Your task to perform on an android device: toggle improve location accuracy Image 0: 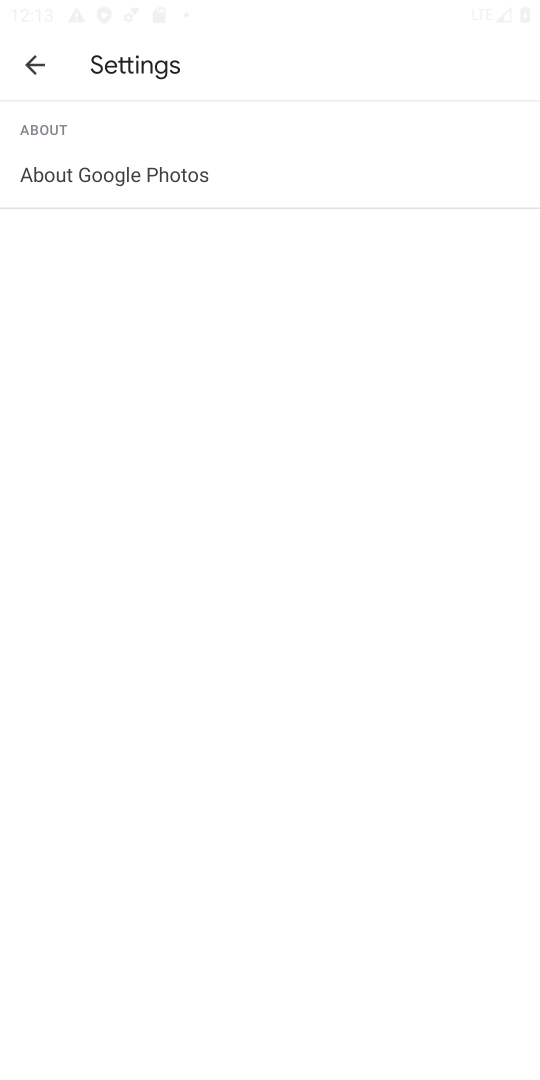
Step 0: press home button
Your task to perform on an android device: toggle improve location accuracy Image 1: 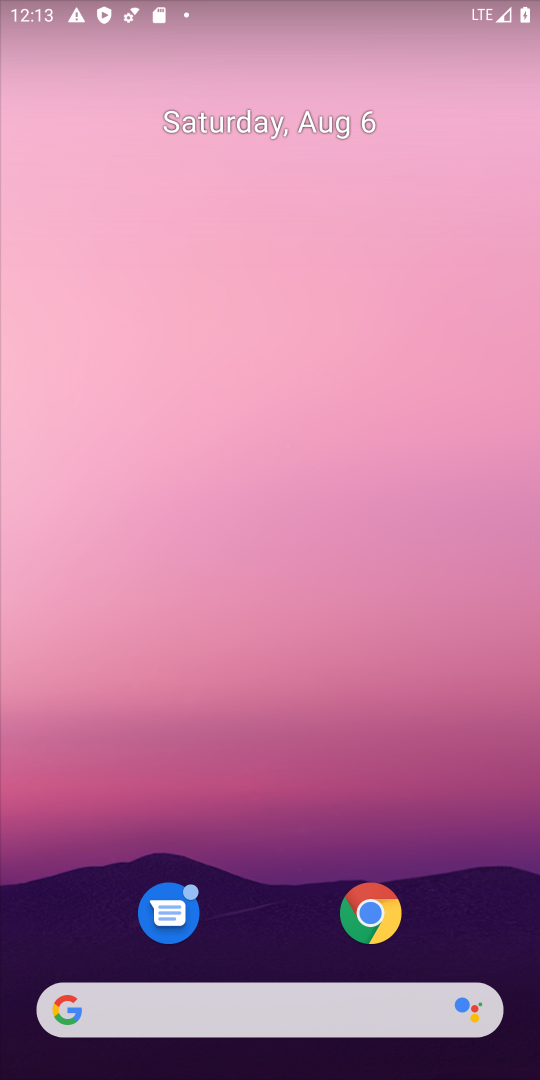
Step 1: drag from (457, 915) to (449, 445)
Your task to perform on an android device: toggle improve location accuracy Image 2: 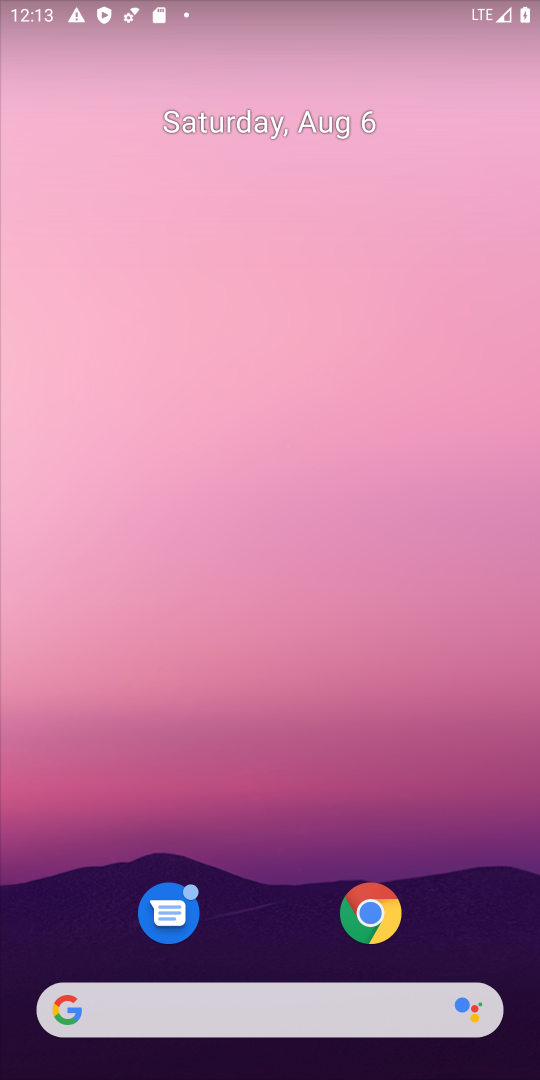
Step 2: drag from (470, 894) to (474, 265)
Your task to perform on an android device: toggle improve location accuracy Image 3: 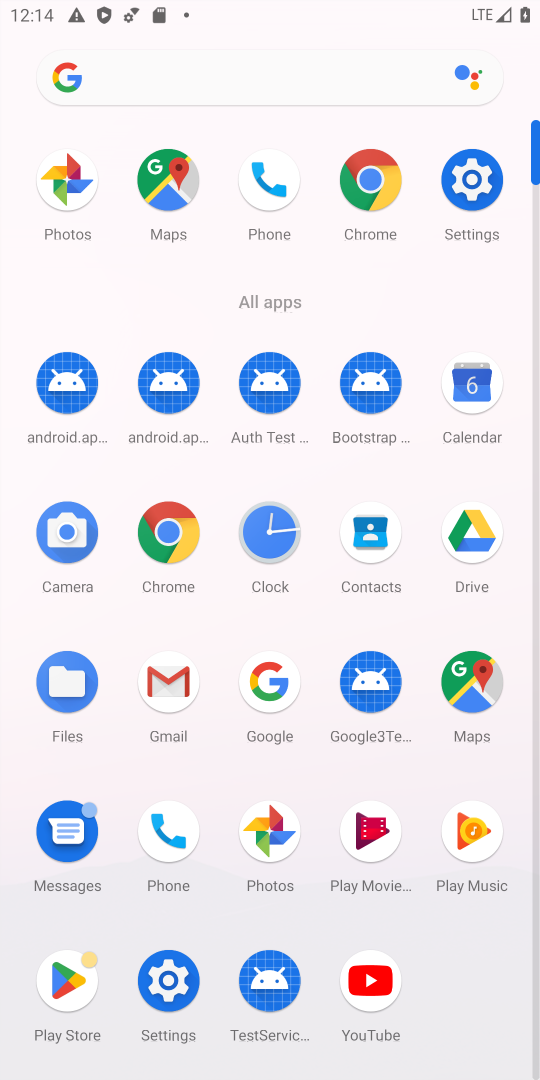
Step 3: click (161, 977)
Your task to perform on an android device: toggle improve location accuracy Image 4: 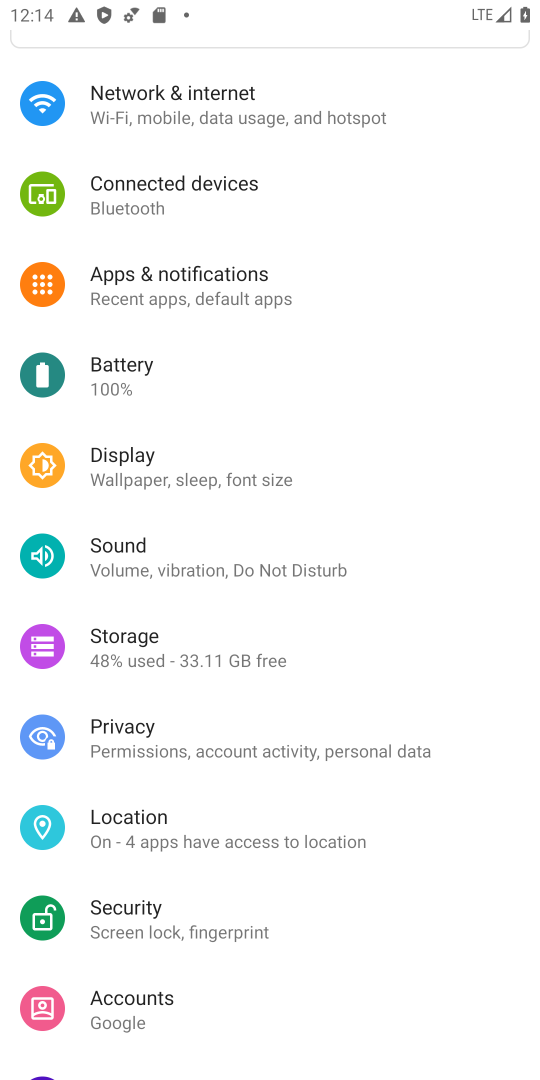
Step 4: drag from (453, 429) to (446, 564)
Your task to perform on an android device: toggle improve location accuracy Image 5: 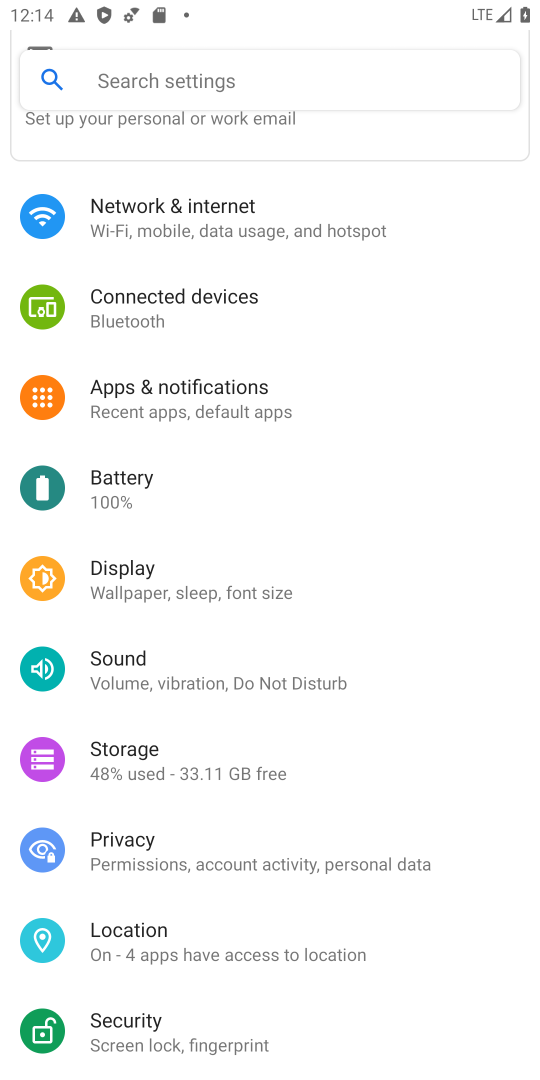
Step 5: drag from (460, 353) to (434, 601)
Your task to perform on an android device: toggle improve location accuracy Image 6: 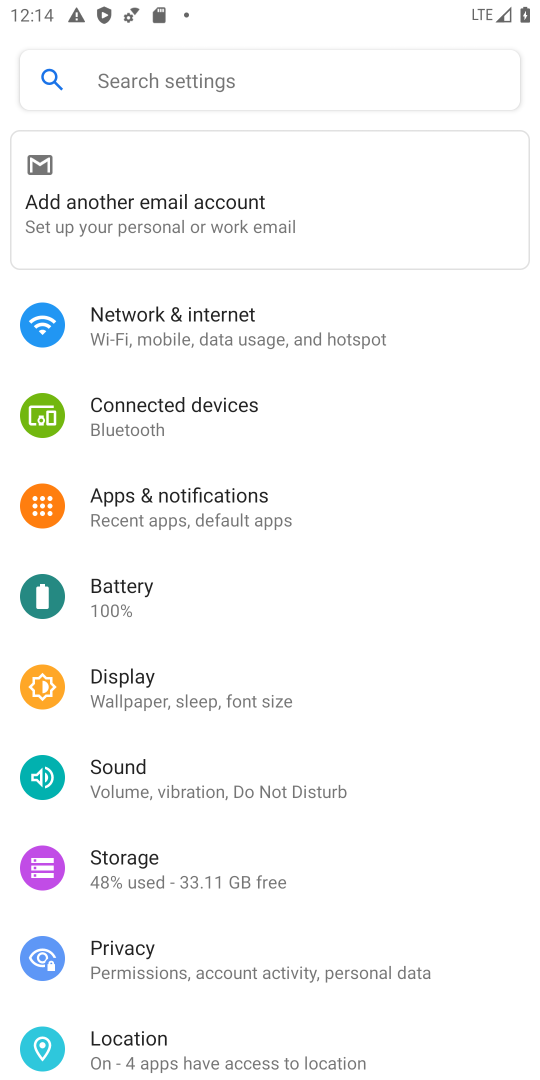
Step 6: drag from (418, 393) to (419, 599)
Your task to perform on an android device: toggle improve location accuracy Image 7: 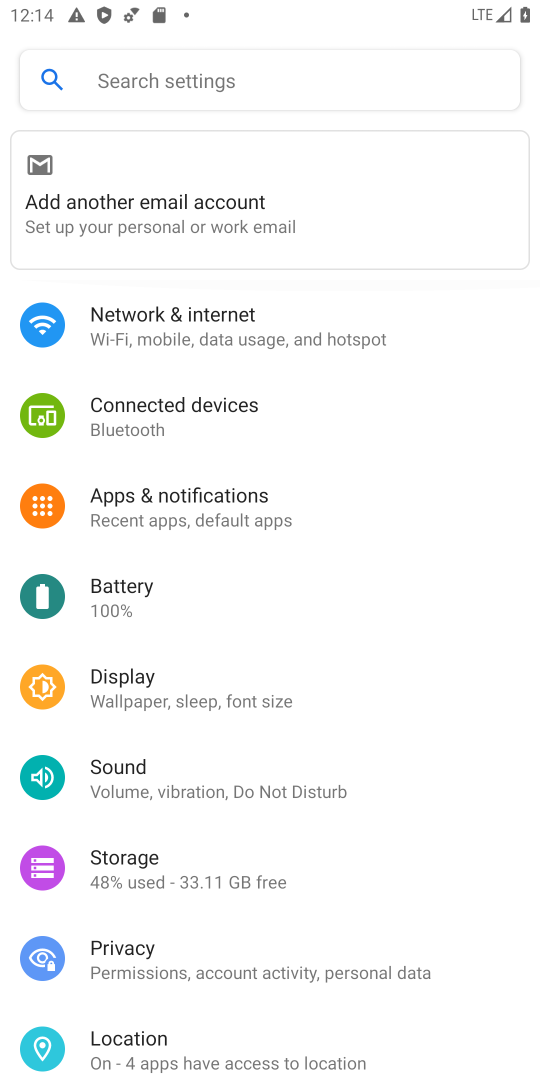
Step 7: drag from (455, 651) to (437, 418)
Your task to perform on an android device: toggle improve location accuracy Image 8: 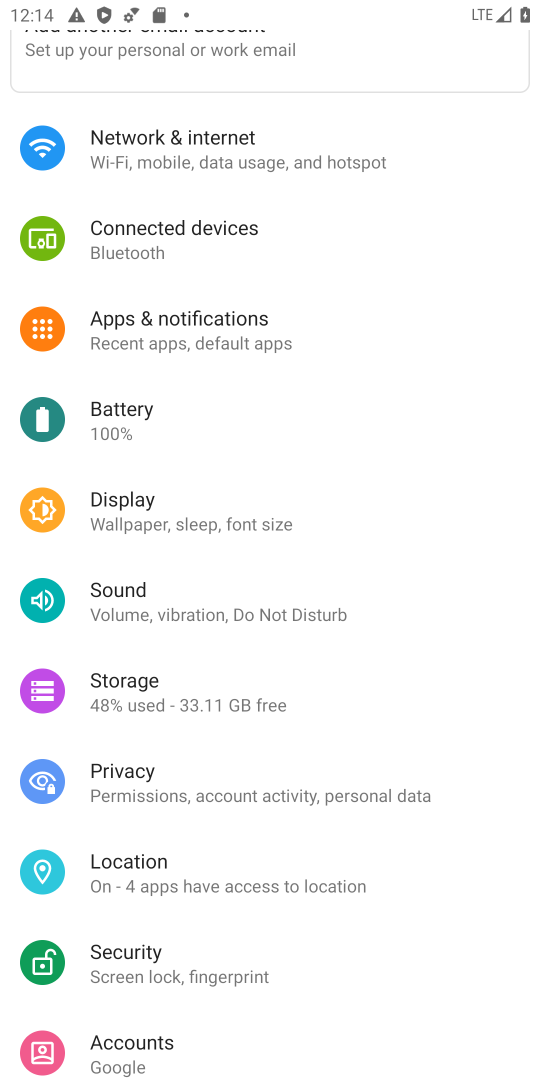
Step 8: drag from (400, 759) to (400, 366)
Your task to perform on an android device: toggle improve location accuracy Image 9: 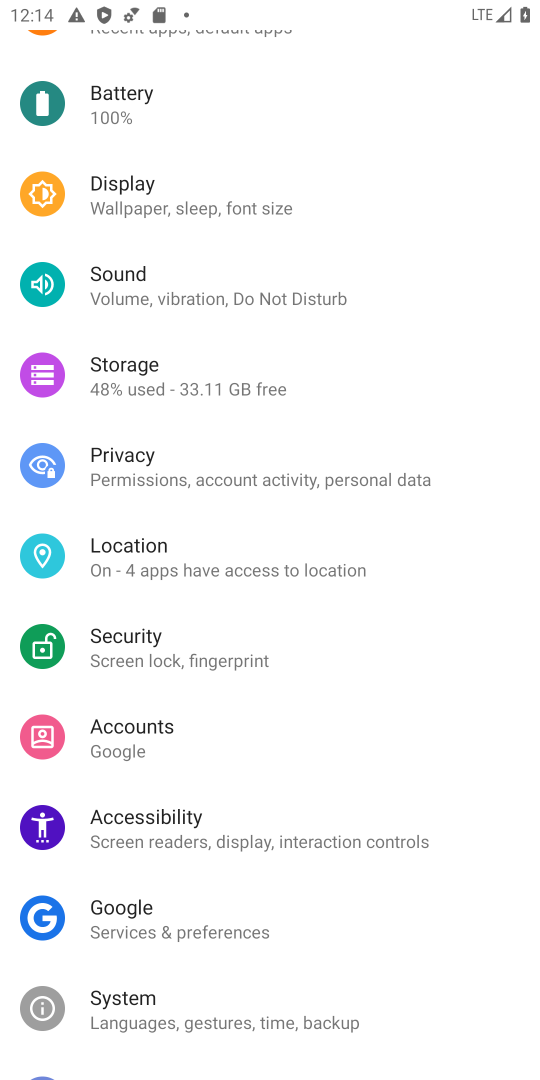
Step 9: click (324, 564)
Your task to perform on an android device: toggle improve location accuracy Image 10: 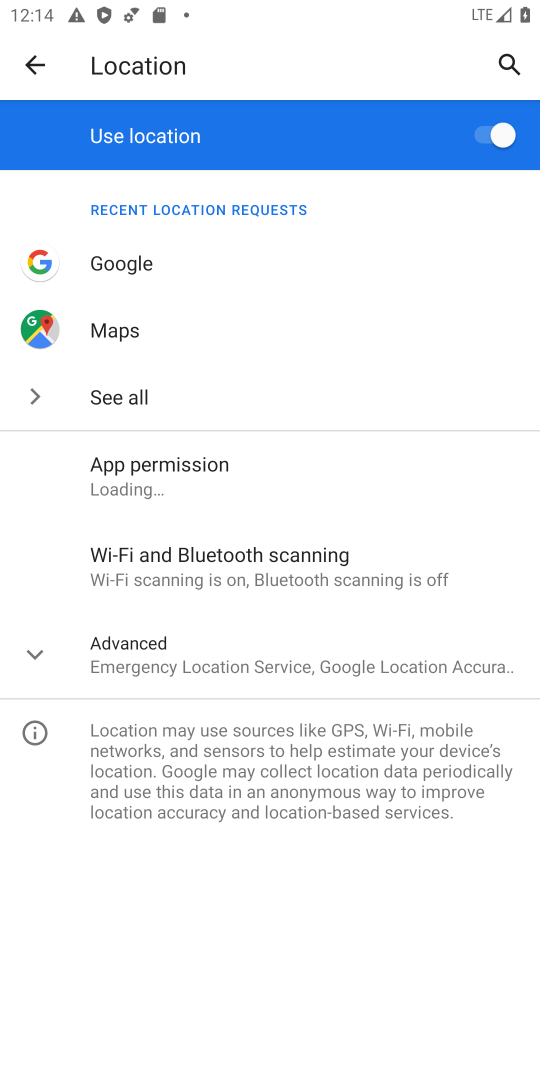
Step 10: click (309, 654)
Your task to perform on an android device: toggle improve location accuracy Image 11: 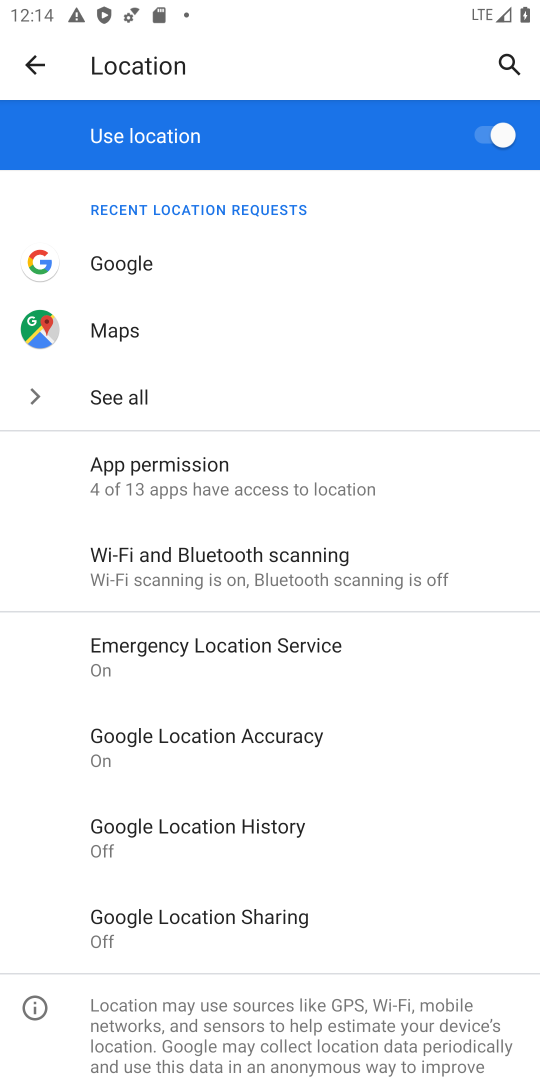
Step 11: click (267, 733)
Your task to perform on an android device: toggle improve location accuracy Image 12: 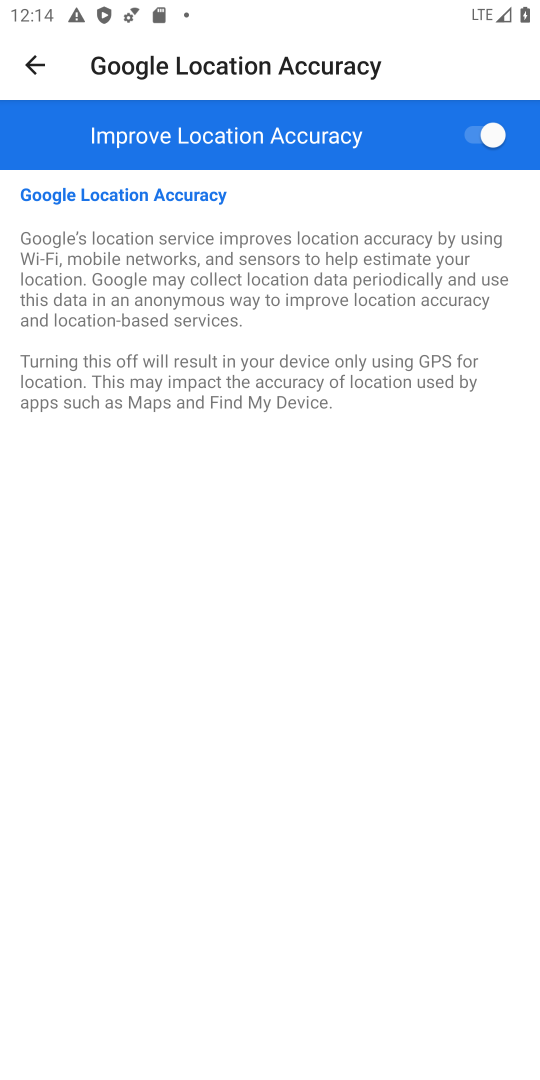
Step 12: click (493, 134)
Your task to perform on an android device: toggle improve location accuracy Image 13: 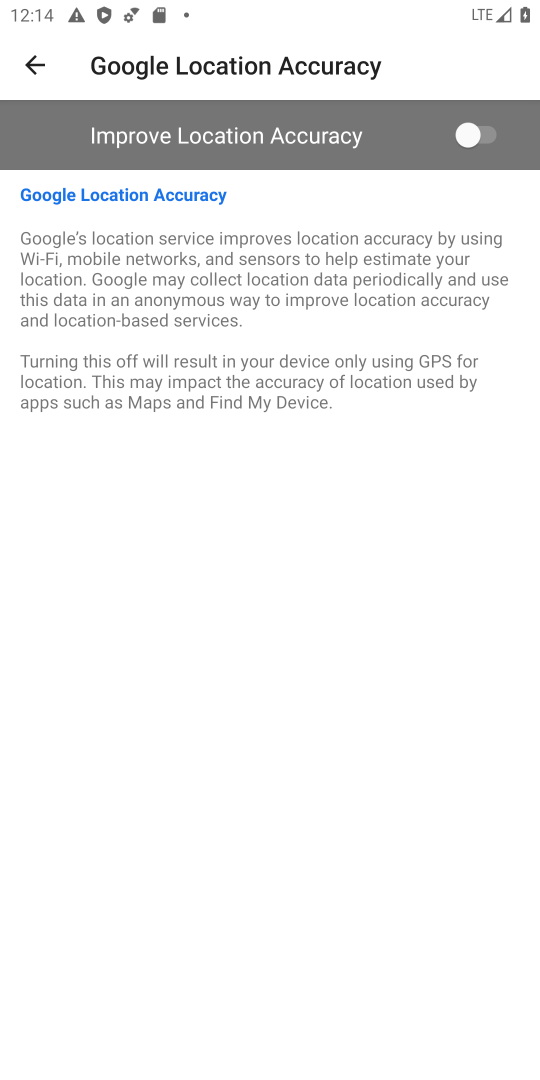
Step 13: task complete